Your task to perform on an android device: turn notification dots on Image 0: 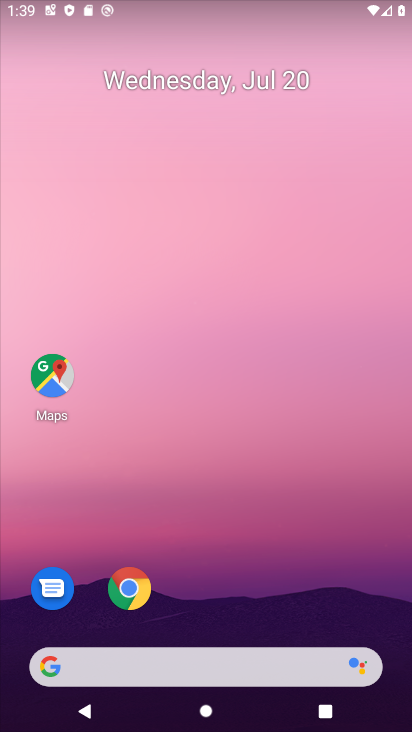
Step 0: drag from (376, 630) to (271, 36)
Your task to perform on an android device: turn notification dots on Image 1: 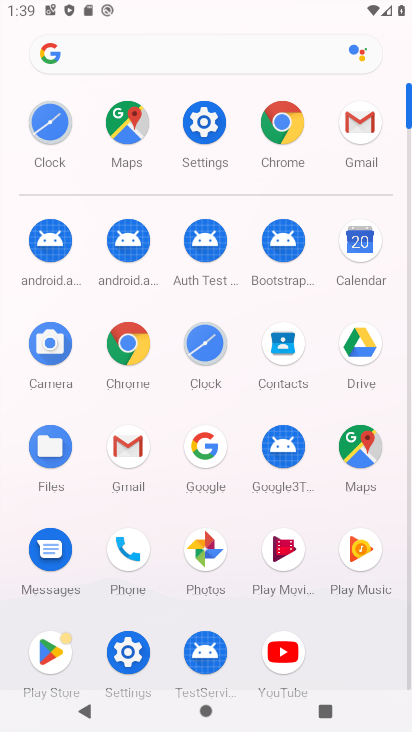
Step 1: click (124, 642)
Your task to perform on an android device: turn notification dots on Image 2: 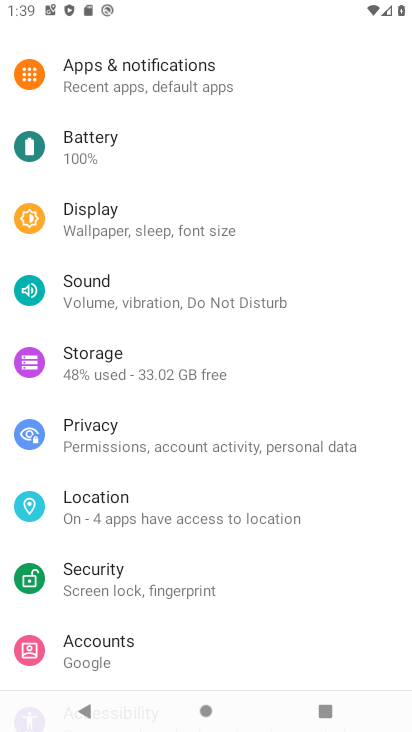
Step 2: click (158, 79)
Your task to perform on an android device: turn notification dots on Image 3: 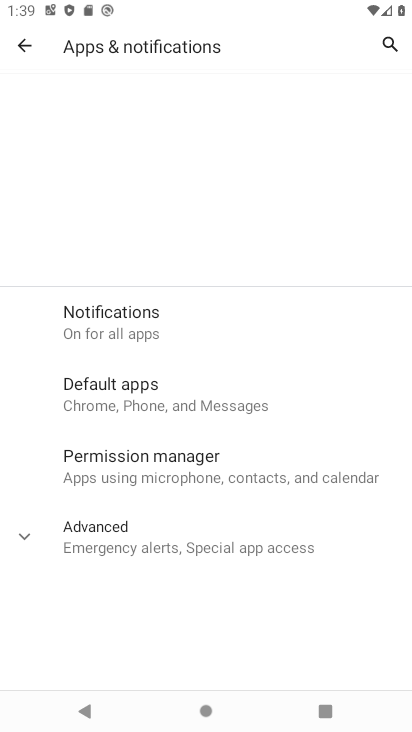
Step 3: click (118, 309)
Your task to perform on an android device: turn notification dots on Image 4: 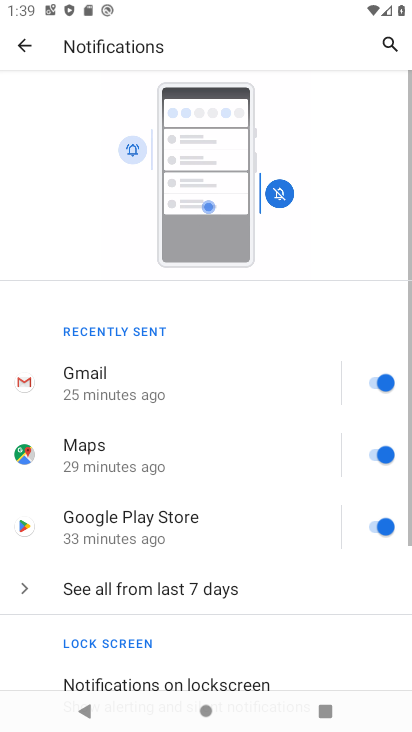
Step 4: drag from (136, 632) to (211, 17)
Your task to perform on an android device: turn notification dots on Image 5: 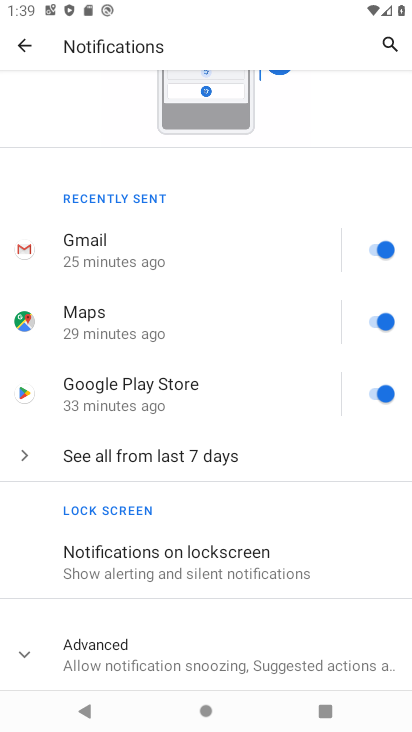
Step 5: click (62, 637)
Your task to perform on an android device: turn notification dots on Image 6: 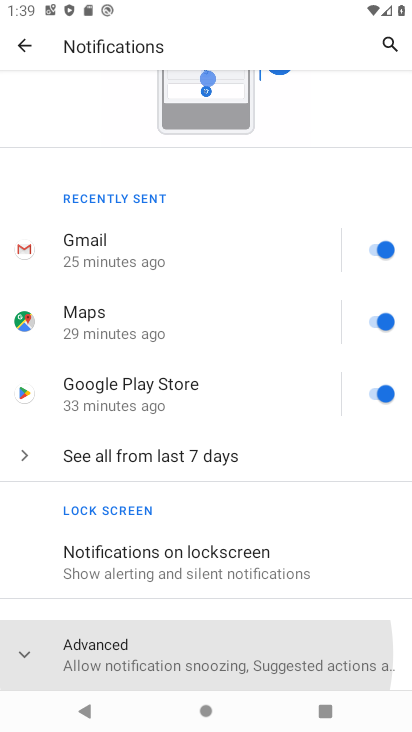
Step 6: task complete